Your task to perform on an android device: change notification settings in the gmail app Image 0: 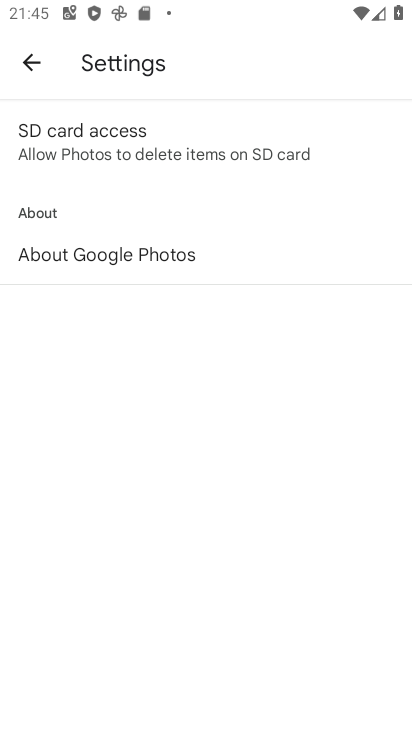
Step 0: press home button
Your task to perform on an android device: change notification settings in the gmail app Image 1: 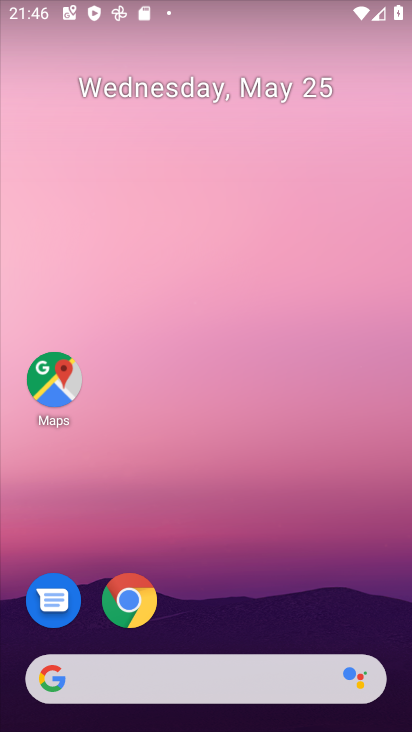
Step 1: drag from (370, 585) to (310, 131)
Your task to perform on an android device: change notification settings in the gmail app Image 2: 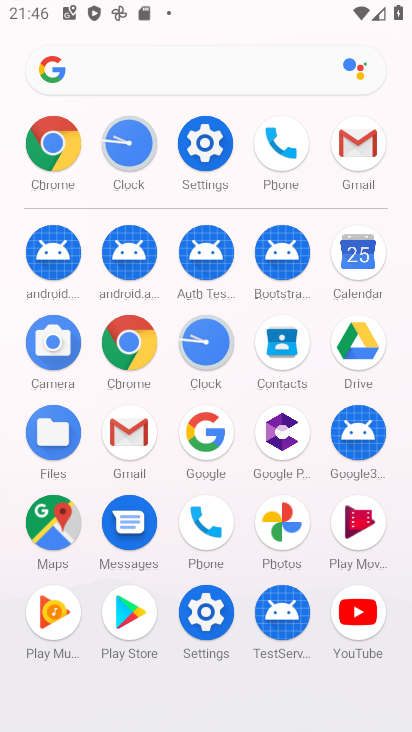
Step 2: click (126, 429)
Your task to perform on an android device: change notification settings in the gmail app Image 3: 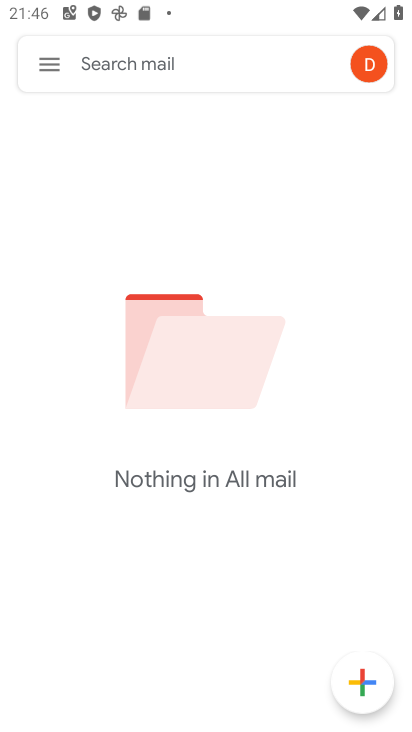
Step 3: click (62, 71)
Your task to perform on an android device: change notification settings in the gmail app Image 4: 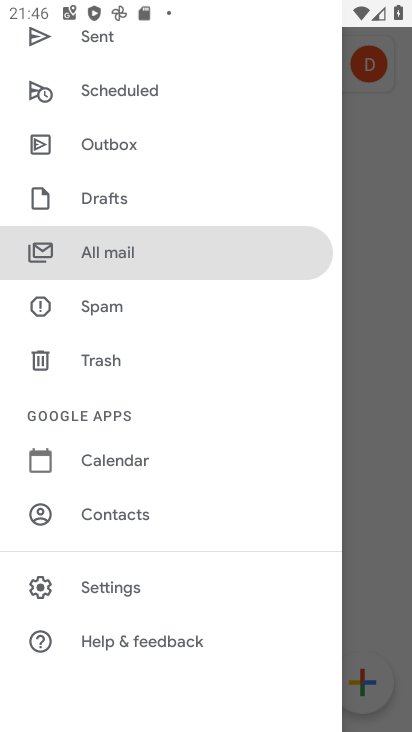
Step 4: click (180, 590)
Your task to perform on an android device: change notification settings in the gmail app Image 5: 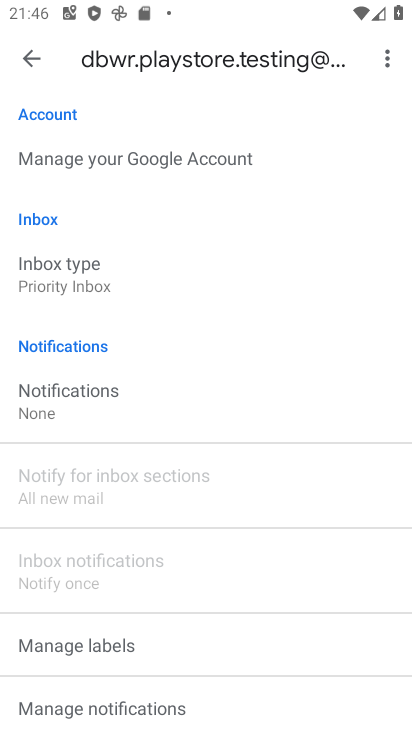
Step 5: drag from (228, 606) to (228, 332)
Your task to perform on an android device: change notification settings in the gmail app Image 6: 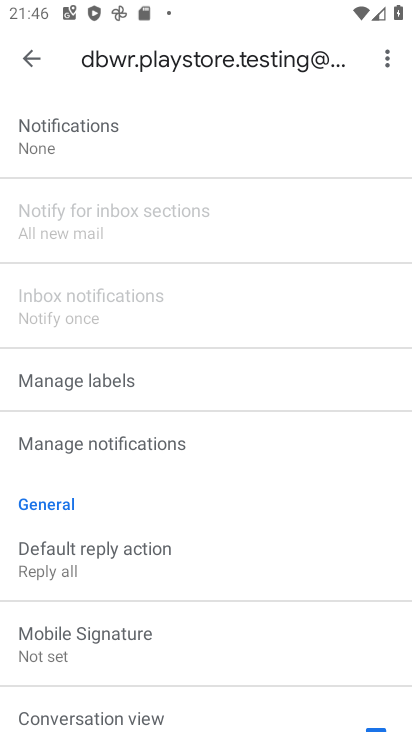
Step 6: drag from (218, 224) to (218, 456)
Your task to perform on an android device: change notification settings in the gmail app Image 7: 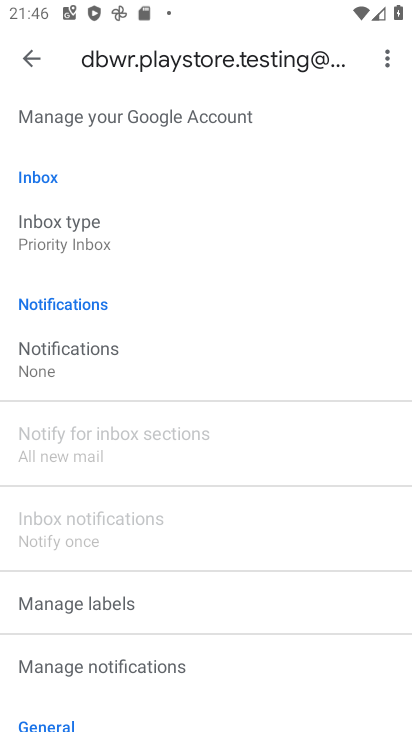
Step 7: click (60, 364)
Your task to perform on an android device: change notification settings in the gmail app Image 8: 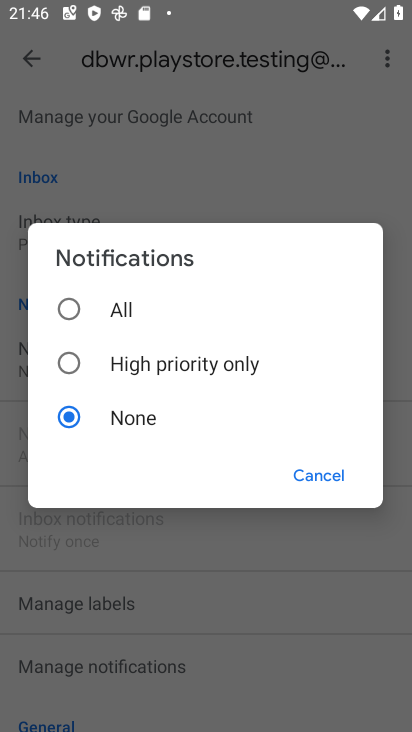
Step 8: click (67, 370)
Your task to perform on an android device: change notification settings in the gmail app Image 9: 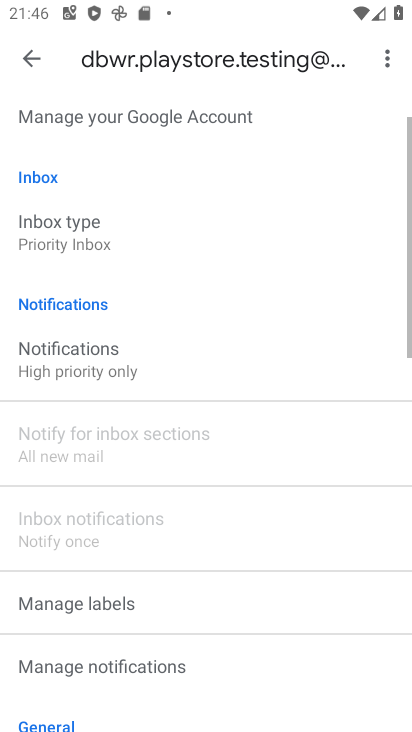
Step 9: task complete